Your task to perform on an android device: change notification settings in the gmail app Image 0: 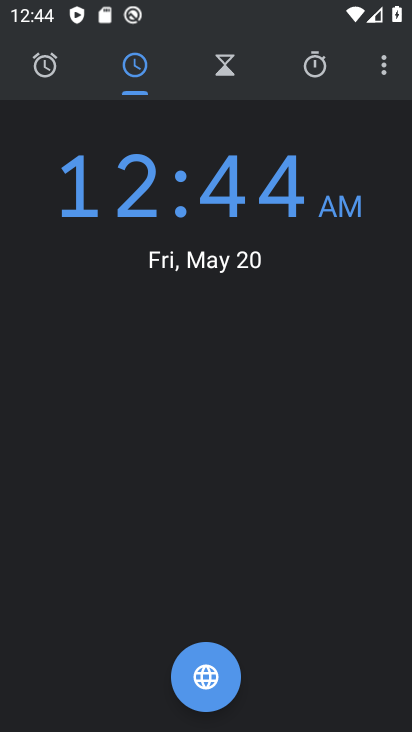
Step 0: press home button
Your task to perform on an android device: change notification settings in the gmail app Image 1: 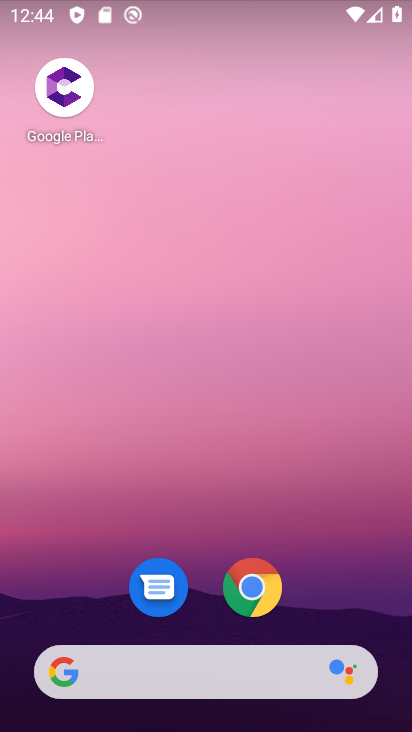
Step 1: drag from (294, 536) to (205, 27)
Your task to perform on an android device: change notification settings in the gmail app Image 2: 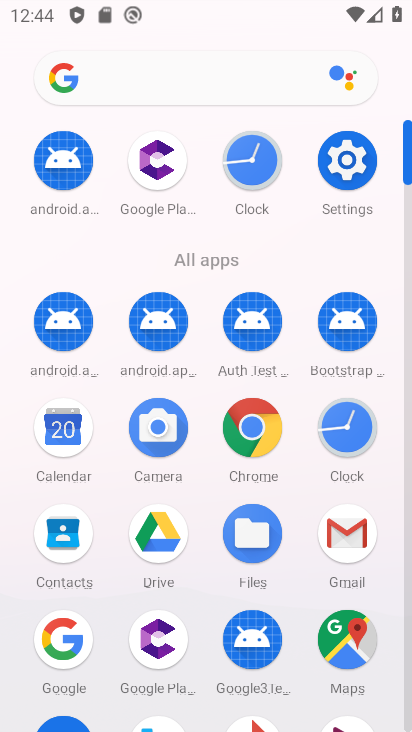
Step 2: click (339, 532)
Your task to perform on an android device: change notification settings in the gmail app Image 3: 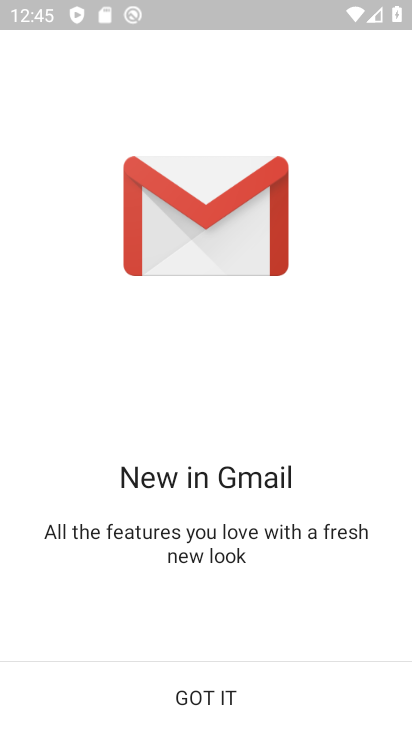
Step 3: click (188, 698)
Your task to perform on an android device: change notification settings in the gmail app Image 4: 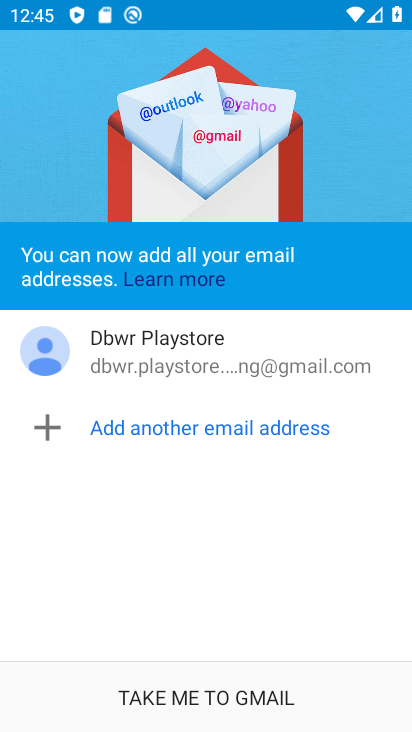
Step 4: click (194, 690)
Your task to perform on an android device: change notification settings in the gmail app Image 5: 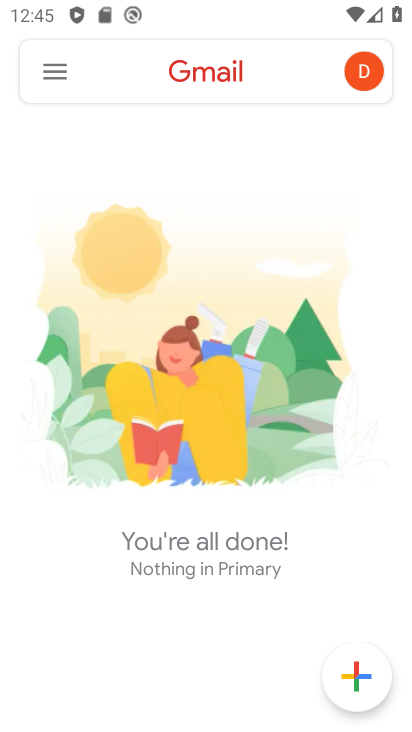
Step 5: click (205, 689)
Your task to perform on an android device: change notification settings in the gmail app Image 6: 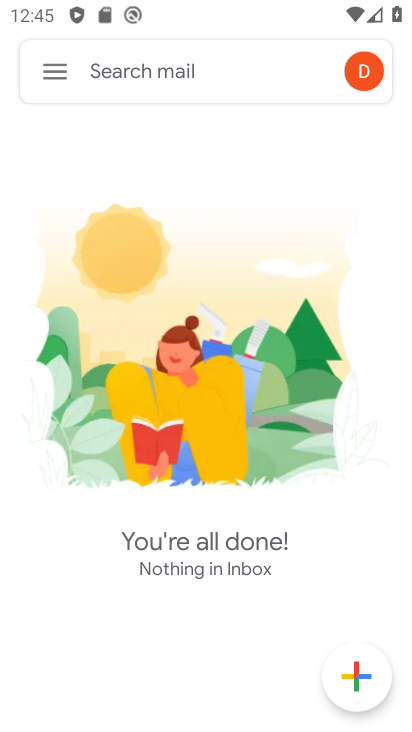
Step 6: click (52, 63)
Your task to perform on an android device: change notification settings in the gmail app Image 7: 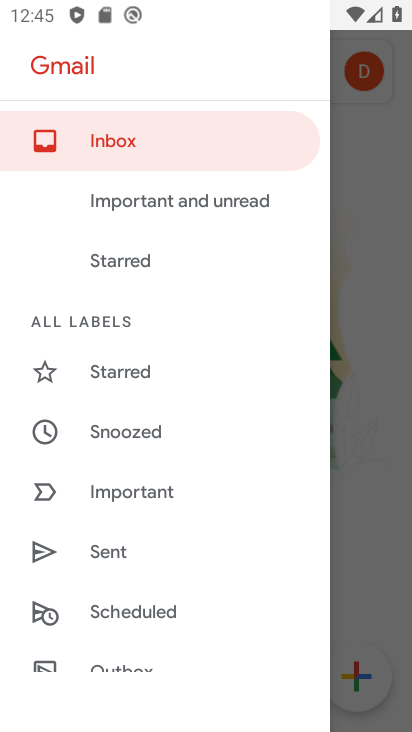
Step 7: drag from (178, 573) to (172, 27)
Your task to perform on an android device: change notification settings in the gmail app Image 8: 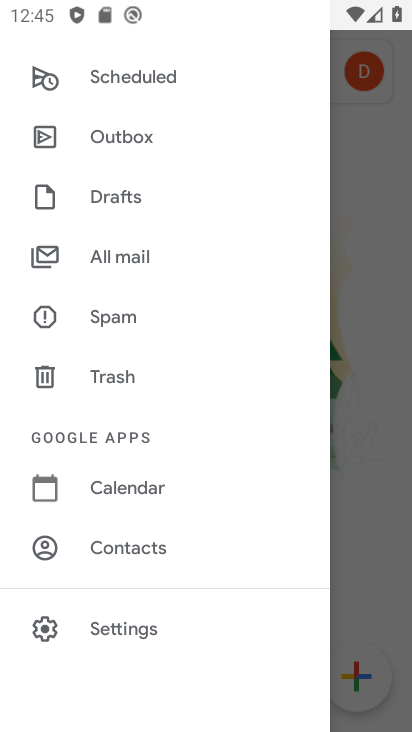
Step 8: click (113, 627)
Your task to perform on an android device: change notification settings in the gmail app Image 9: 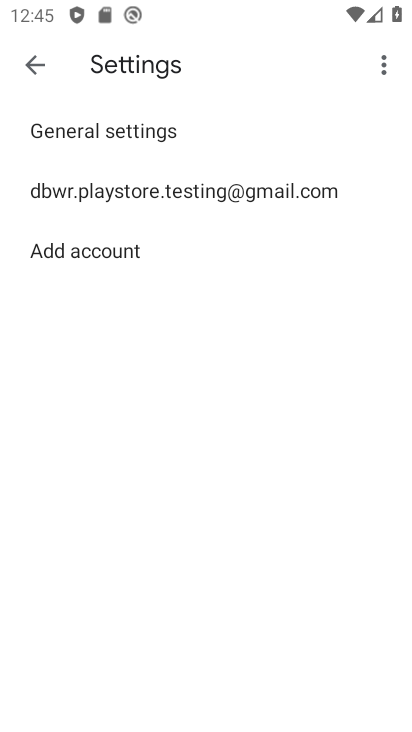
Step 9: click (59, 129)
Your task to perform on an android device: change notification settings in the gmail app Image 10: 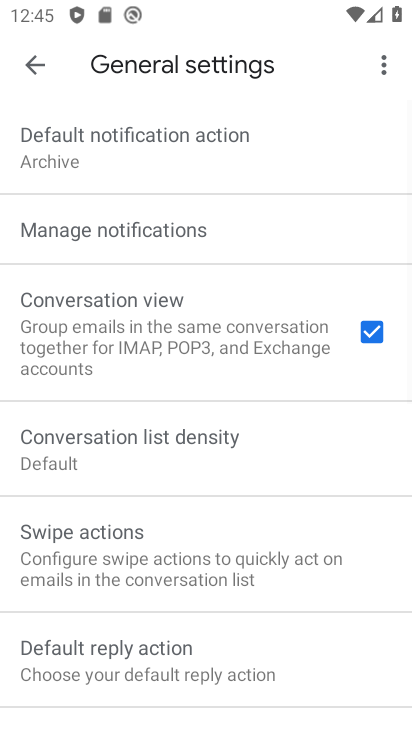
Step 10: click (118, 245)
Your task to perform on an android device: change notification settings in the gmail app Image 11: 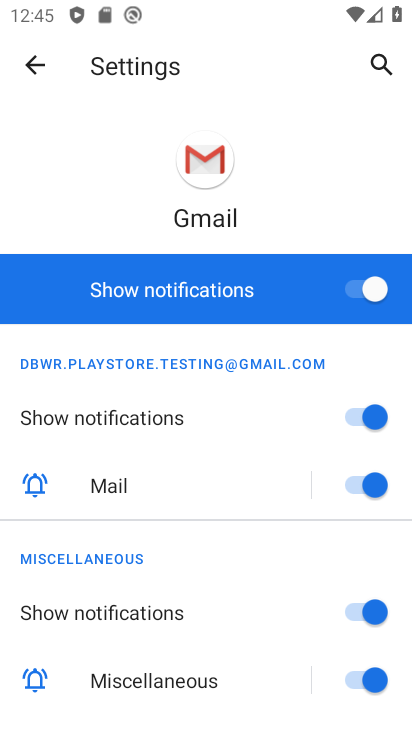
Step 11: click (371, 285)
Your task to perform on an android device: change notification settings in the gmail app Image 12: 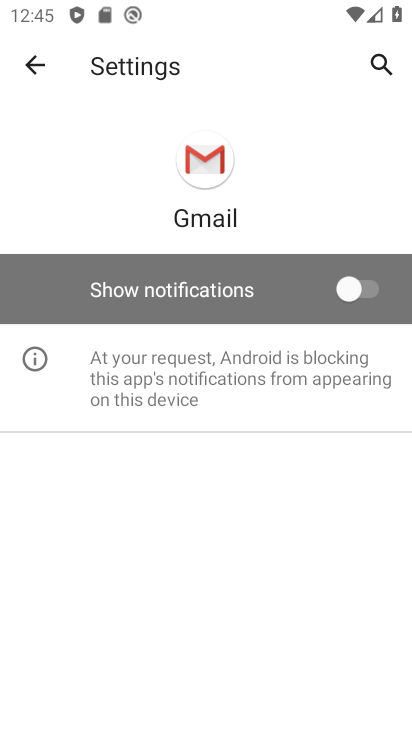
Step 12: task complete